Your task to perform on an android device: move an email to a new category in the gmail app Image 0: 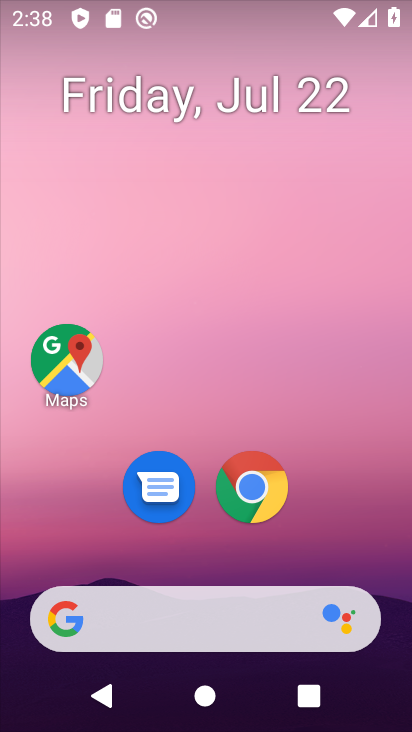
Step 0: drag from (197, 505) to (248, 33)
Your task to perform on an android device: move an email to a new category in the gmail app Image 1: 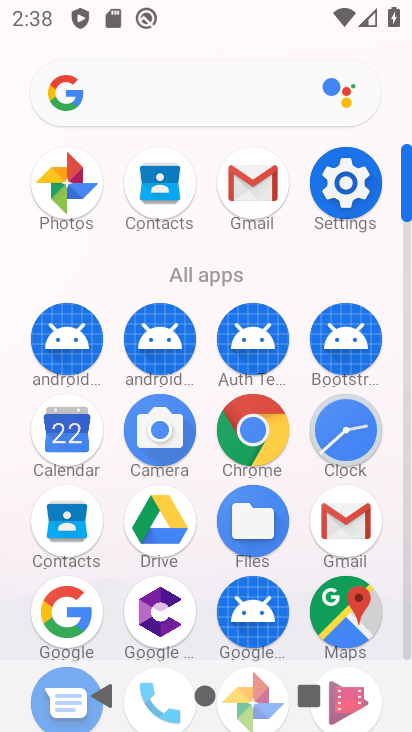
Step 1: click (248, 183)
Your task to perform on an android device: move an email to a new category in the gmail app Image 2: 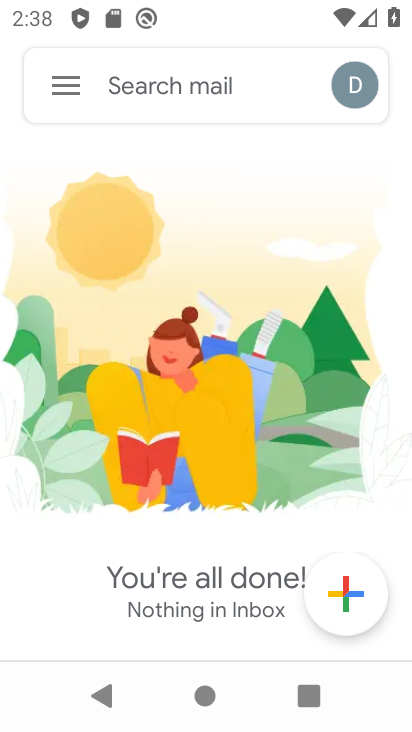
Step 2: click (64, 86)
Your task to perform on an android device: move an email to a new category in the gmail app Image 3: 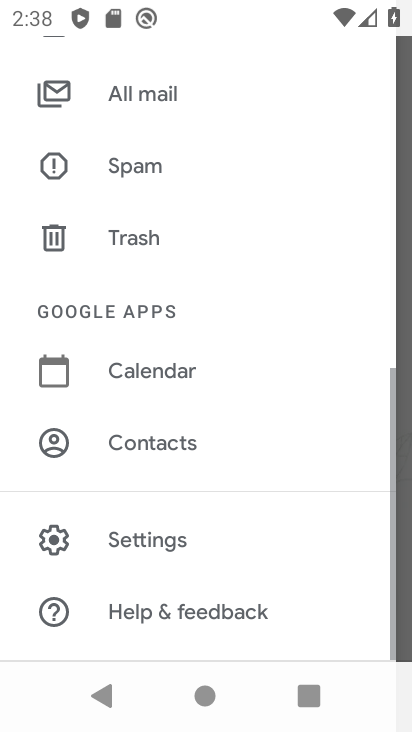
Step 3: drag from (221, 173) to (231, 419)
Your task to perform on an android device: move an email to a new category in the gmail app Image 4: 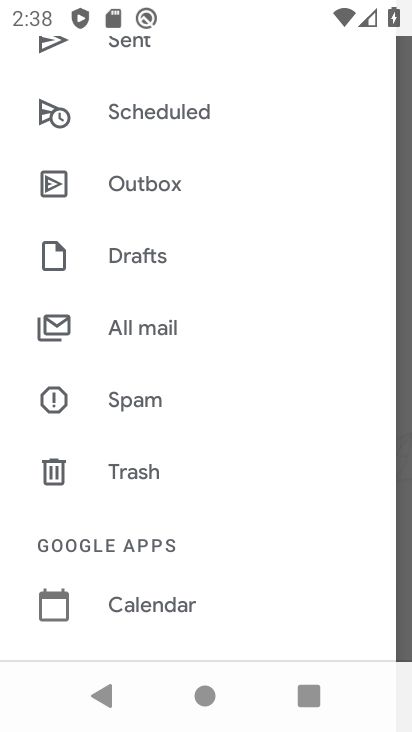
Step 4: click (164, 324)
Your task to perform on an android device: move an email to a new category in the gmail app Image 5: 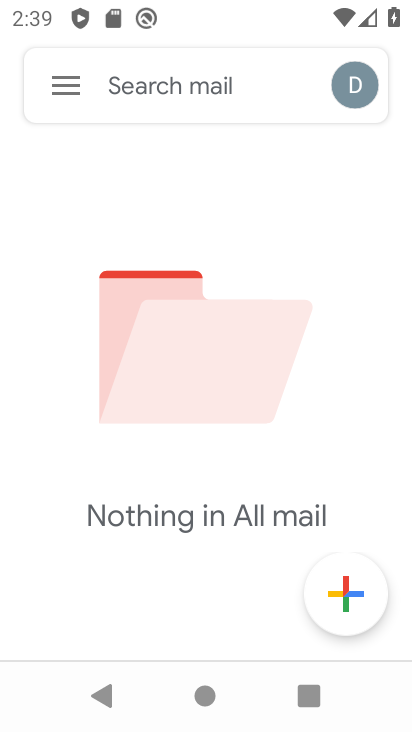
Step 5: click (62, 81)
Your task to perform on an android device: move an email to a new category in the gmail app Image 6: 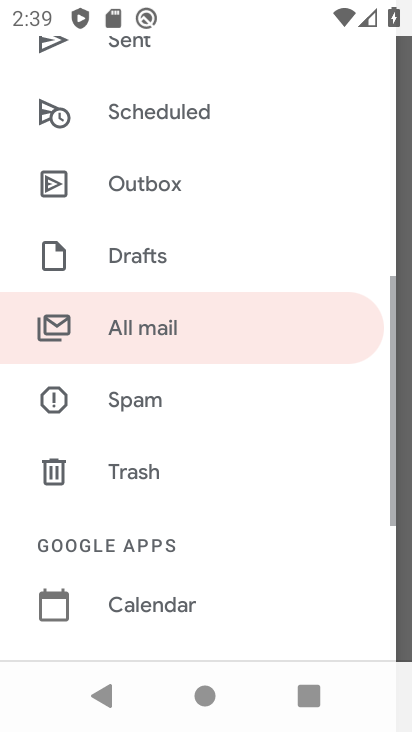
Step 6: click (166, 316)
Your task to perform on an android device: move an email to a new category in the gmail app Image 7: 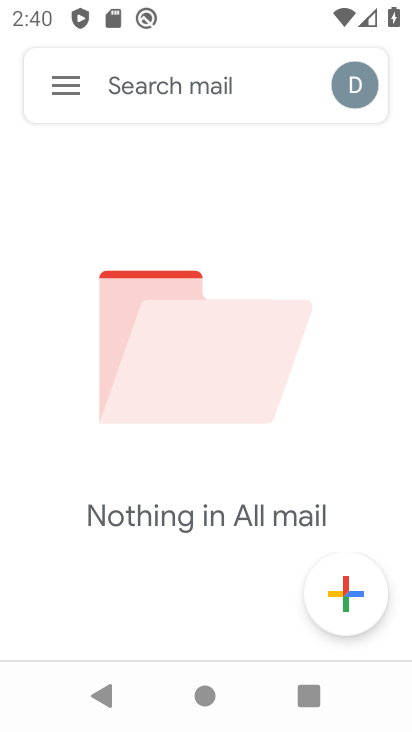
Step 7: task complete